Your task to perform on an android device: Go to Yahoo.com Image 0: 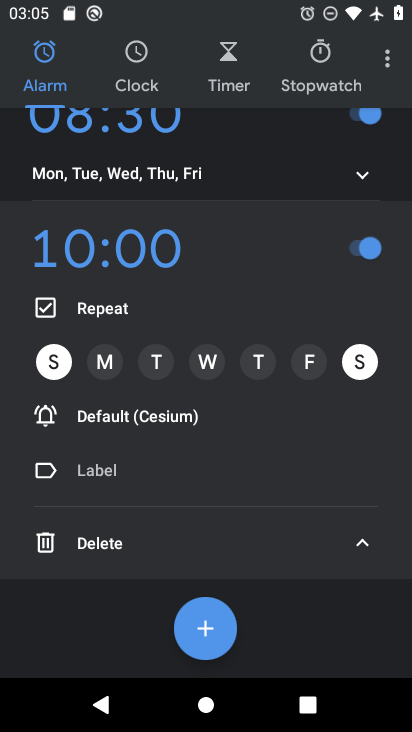
Step 0: press home button
Your task to perform on an android device: Go to Yahoo.com Image 1: 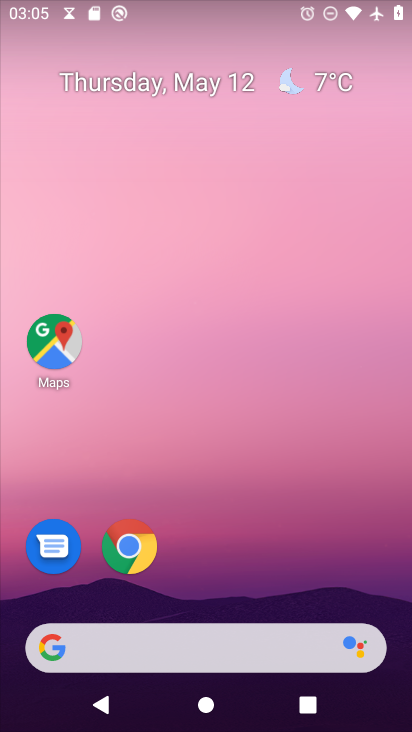
Step 1: drag from (180, 626) to (255, 40)
Your task to perform on an android device: Go to Yahoo.com Image 2: 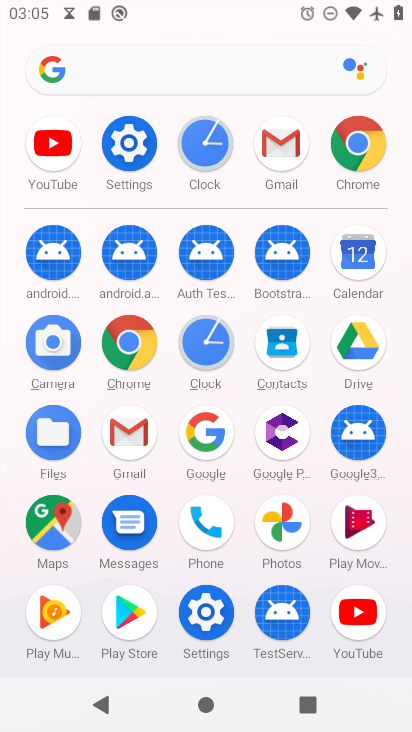
Step 2: click (353, 154)
Your task to perform on an android device: Go to Yahoo.com Image 3: 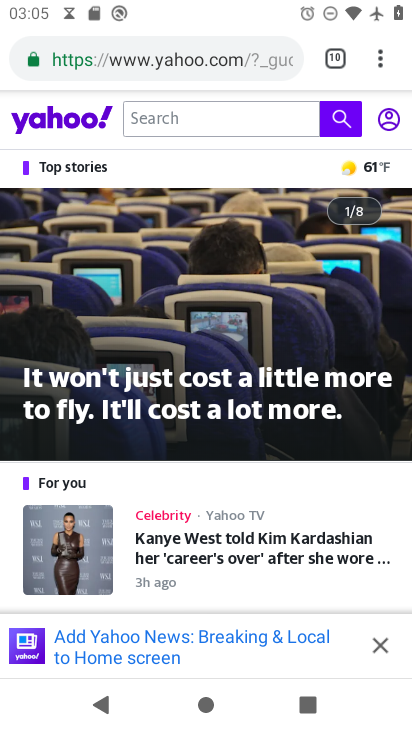
Step 3: task complete